Your task to perform on an android device: Open Wikipedia Image 0: 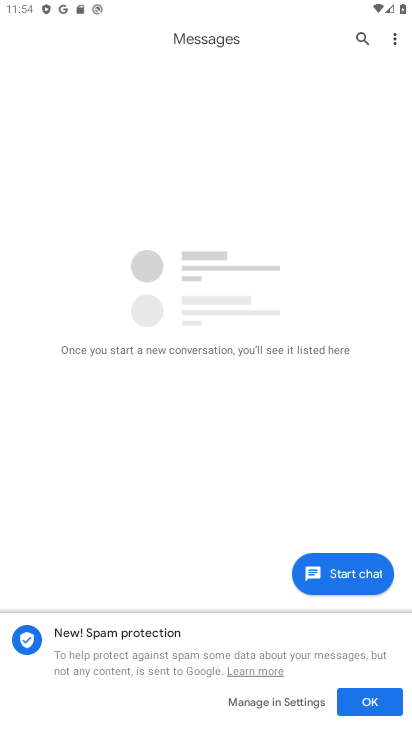
Step 0: press home button
Your task to perform on an android device: Open Wikipedia Image 1: 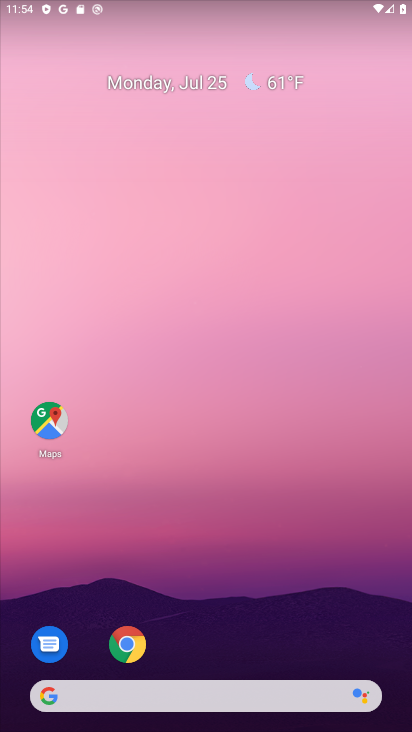
Step 1: click (124, 634)
Your task to perform on an android device: Open Wikipedia Image 2: 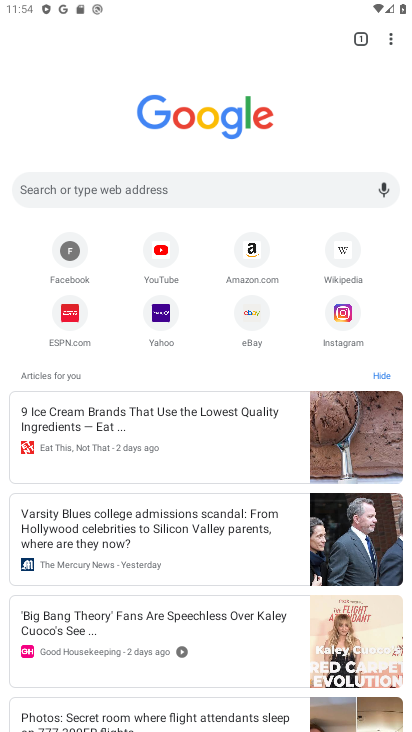
Step 2: click (346, 245)
Your task to perform on an android device: Open Wikipedia Image 3: 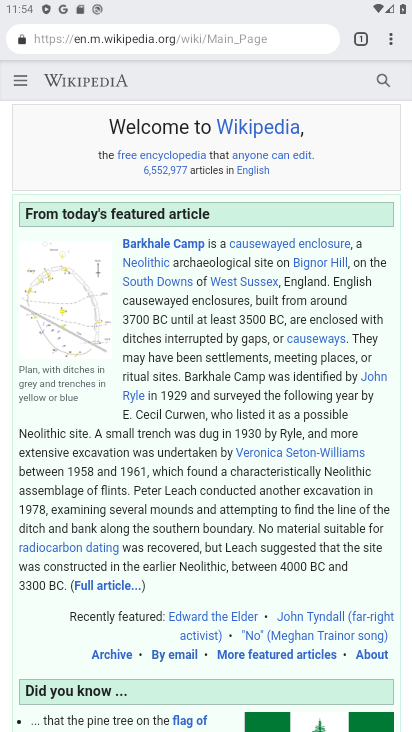
Step 3: task complete